Your task to perform on an android device: Open Chrome and go to the settings page Image 0: 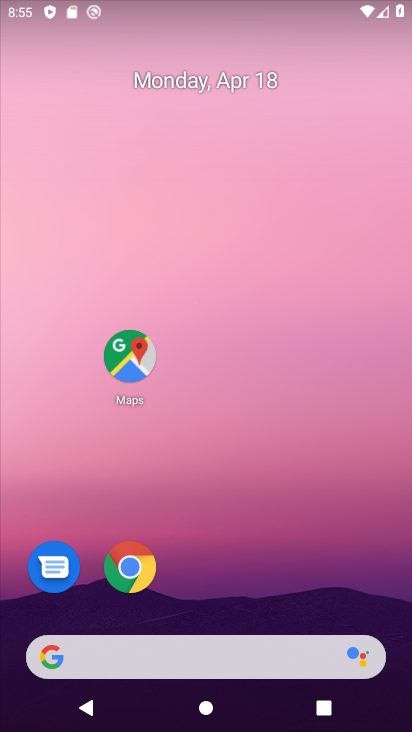
Step 0: click (149, 561)
Your task to perform on an android device: Open Chrome and go to the settings page Image 1: 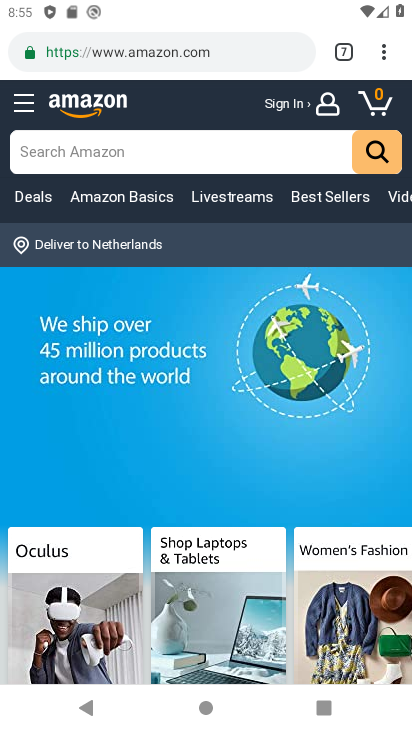
Step 1: click (381, 56)
Your task to perform on an android device: Open Chrome and go to the settings page Image 2: 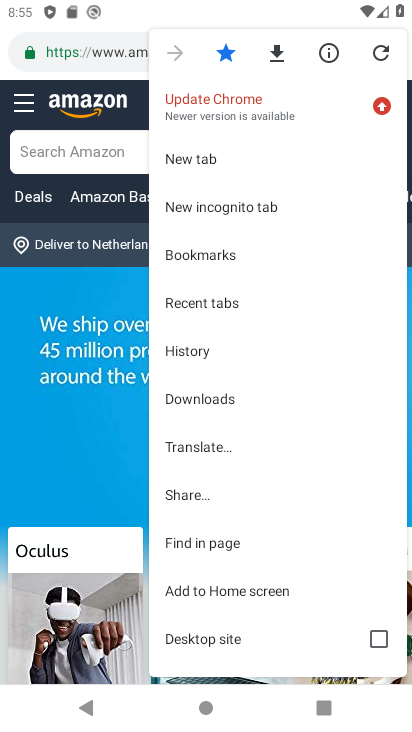
Step 2: drag from (230, 589) to (264, 448)
Your task to perform on an android device: Open Chrome and go to the settings page Image 3: 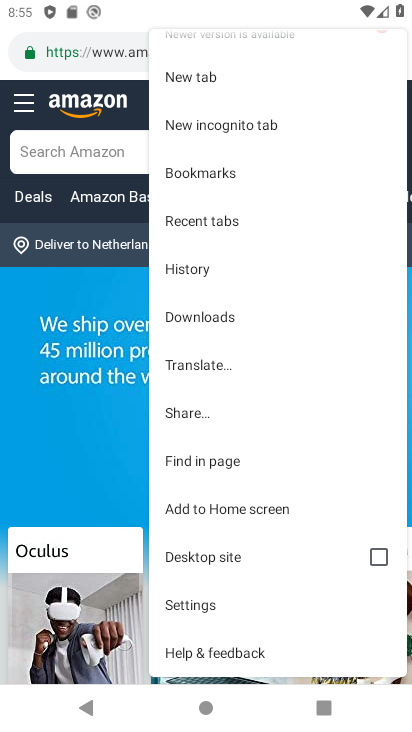
Step 3: click (209, 608)
Your task to perform on an android device: Open Chrome and go to the settings page Image 4: 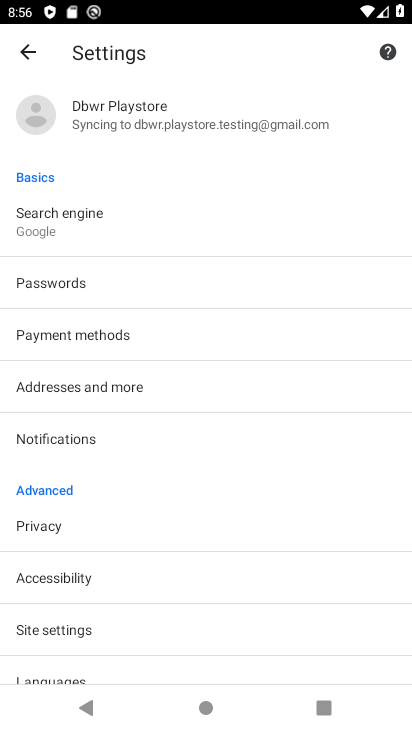
Step 4: task complete